Your task to perform on an android device: turn off notifications in google photos Image 0: 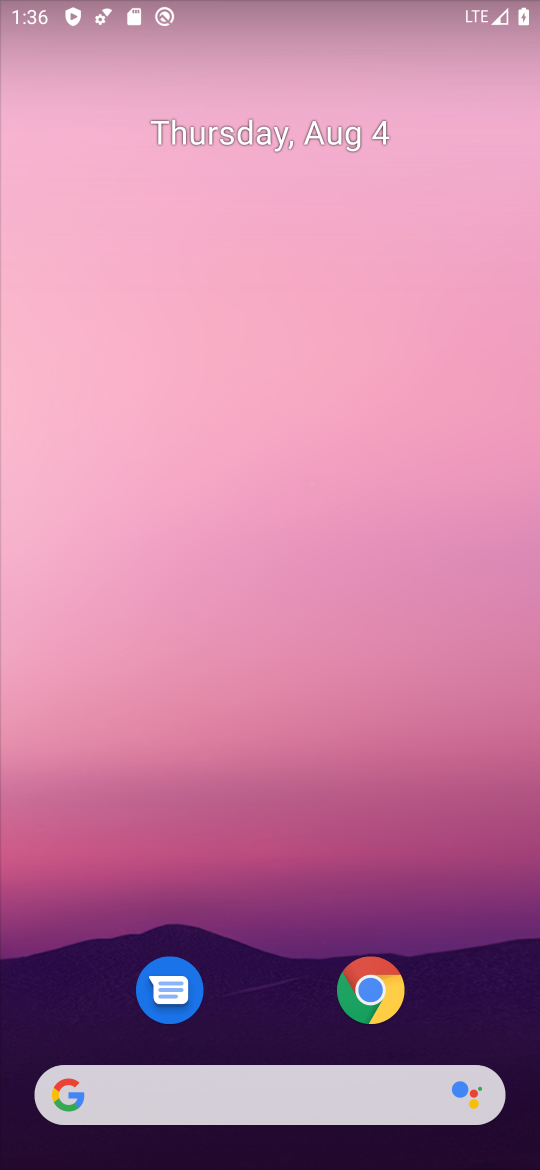
Step 0: drag from (315, 502) to (351, 135)
Your task to perform on an android device: turn off notifications in google photos Image 1: 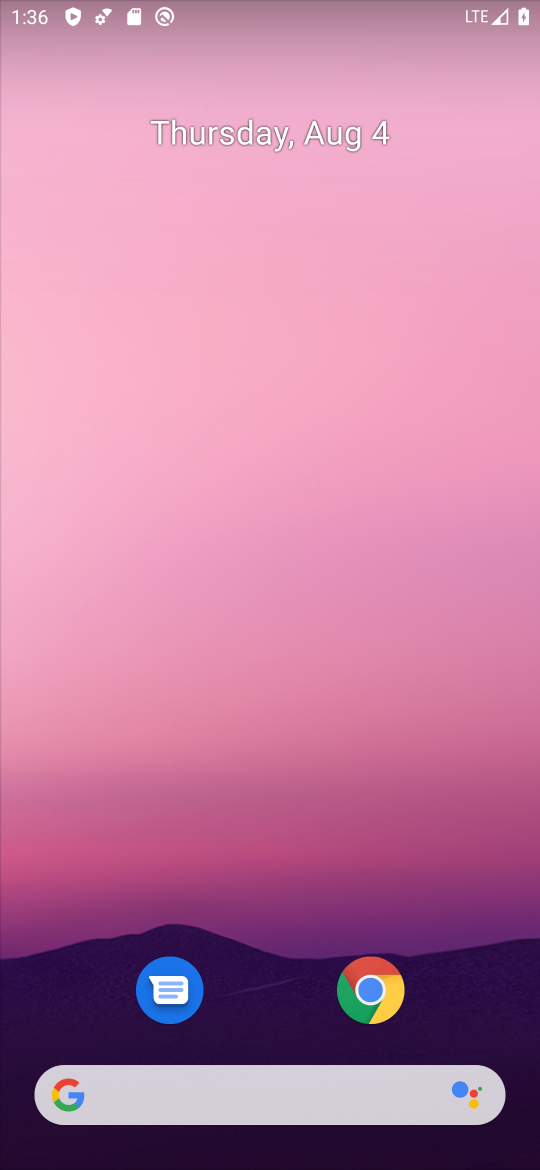
Step 1: drag from (298, 1056) to (304, 224)
Your task to perform on an android device: turn off notifications in google photos Image 2: 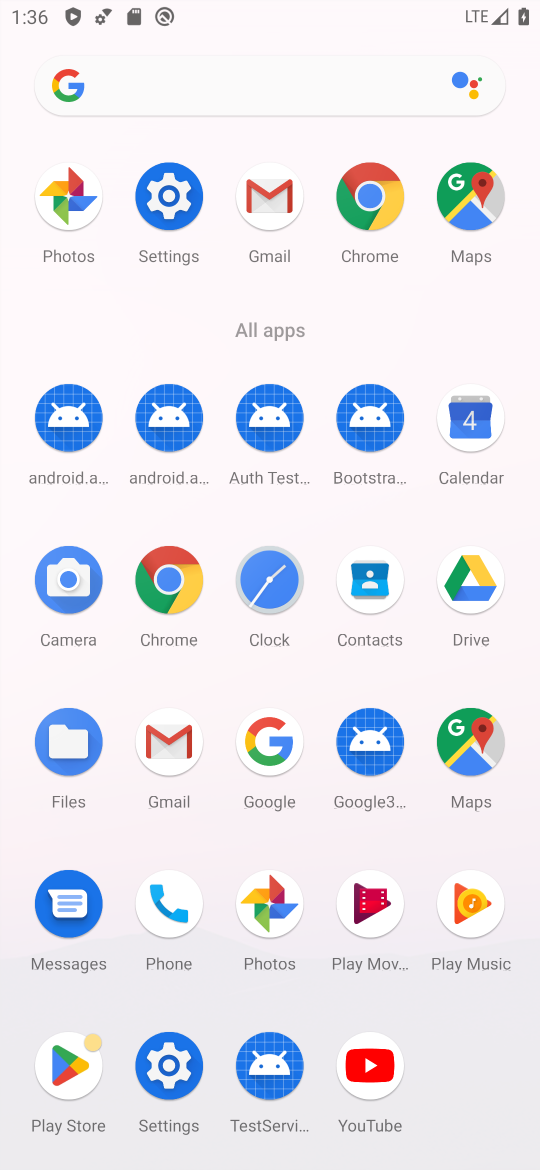
Step 2: click (71, 234)
Your task to perform on an android device: turn off notifications in google photos Image 3: 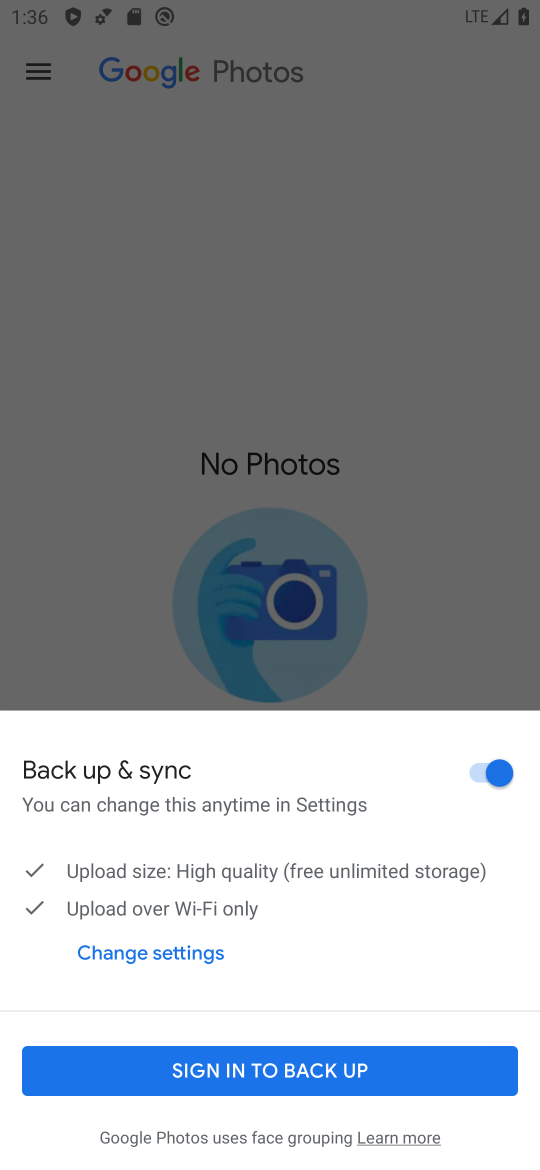
Step 3: task complete